Your task to perform on an android device: Open privacy settings Image 0: 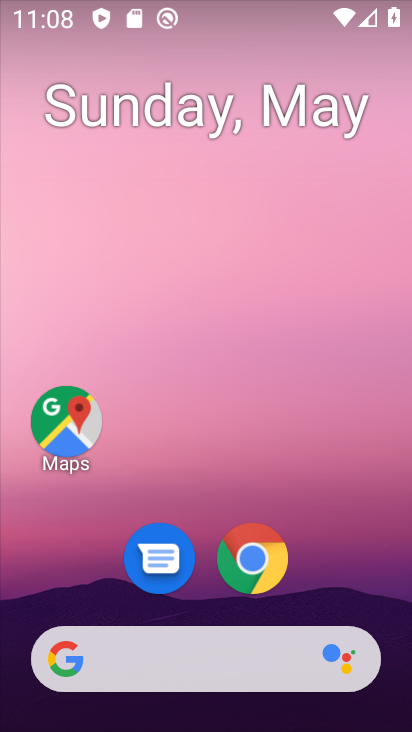
Step 0: drag from (342, 583) to (346, 254)
Your task to perform on an android device: Open privacy settings Image 1: 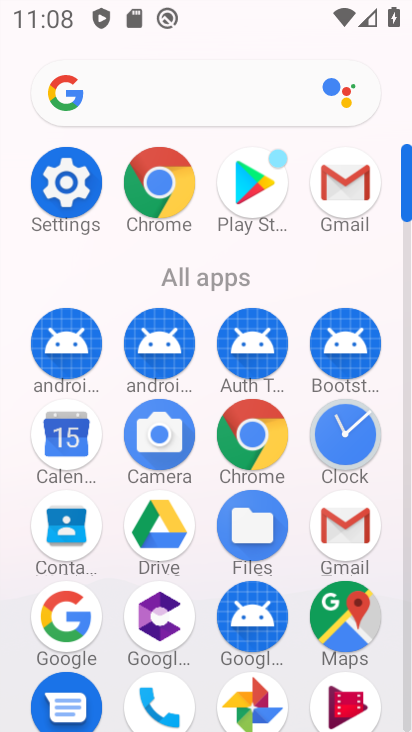
Step 1: click (75, 178)
Your task to perform on an android device: Open privacy settings Image 2: 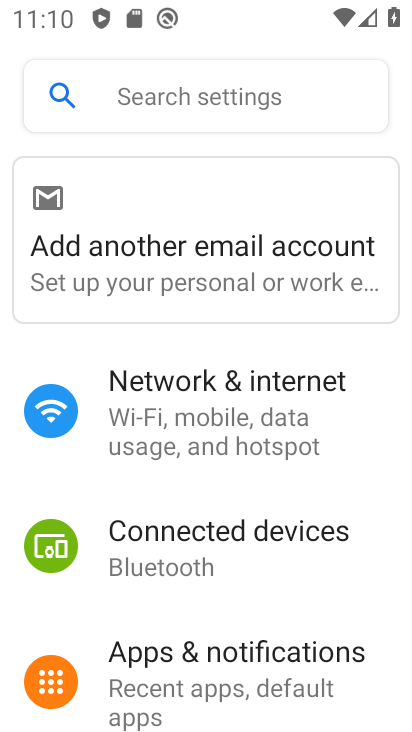
Step 2: drag from (355, 608) to (355, 408)
Your task to perform on an android device: Open privacy settings Image 3: 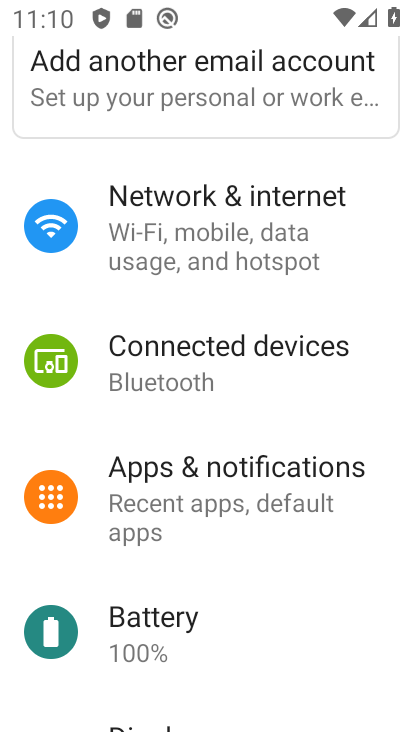
Step 3: drag from (351, 637) to (350, 423)
Your task to perform on an android device: Open privacy settings Image 4: 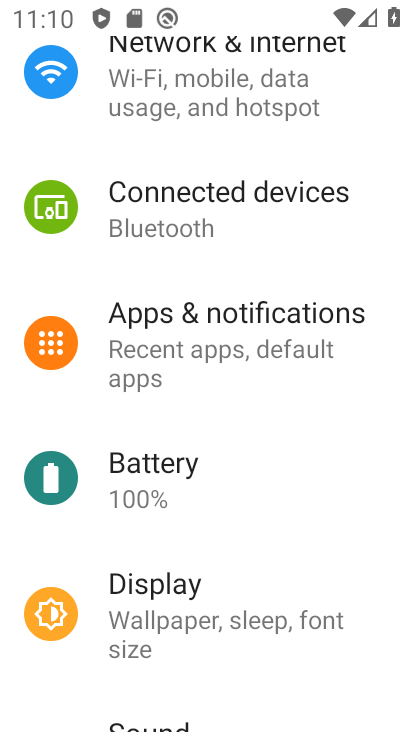
Step 4: drag from (327, 667) to (317, 487)
Your task to perform on an android device: Open privacy settings Image 5: 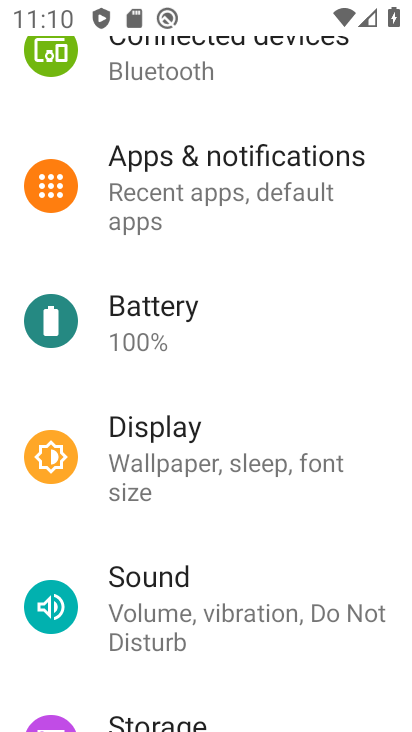
Step 5: drag from (283, 699) to (294, 422)
Your task to perform on an android device: Open privacy settings Image 6: 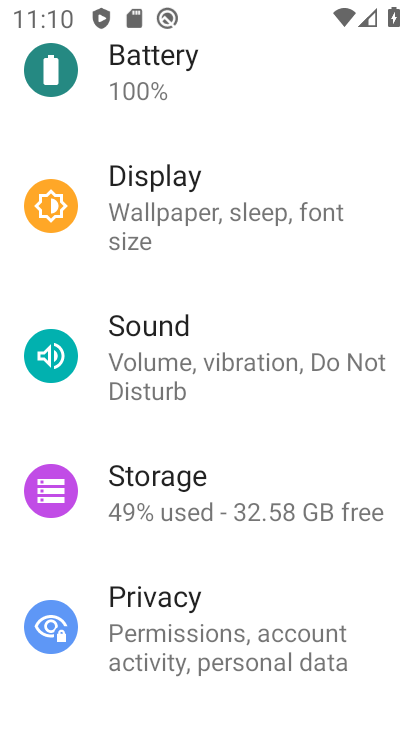
Step 6: click (237, 638)
Your task to perform on an android device: Open privacy settings Image 7: 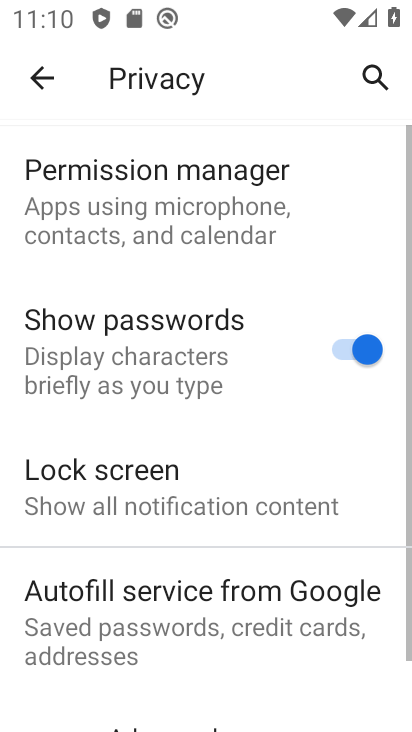
Step 7: drag from (246, 663) to (259, 488)
Your task to perform on an android device: Open privacy settings Image 8: 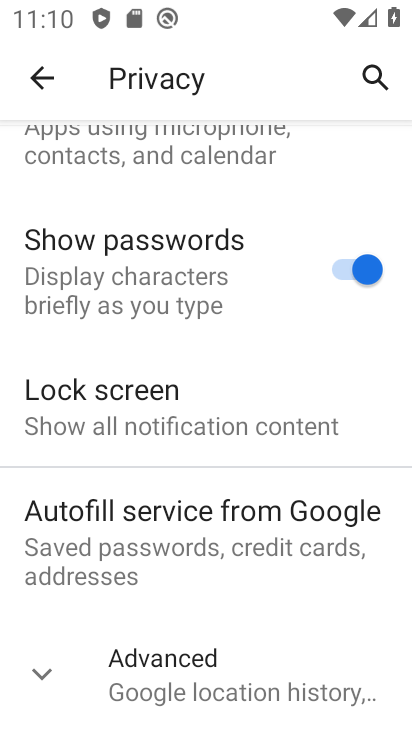
Step 8: click (234, 679)
Your task to perform on an android device: Open privacy settings Image 9: 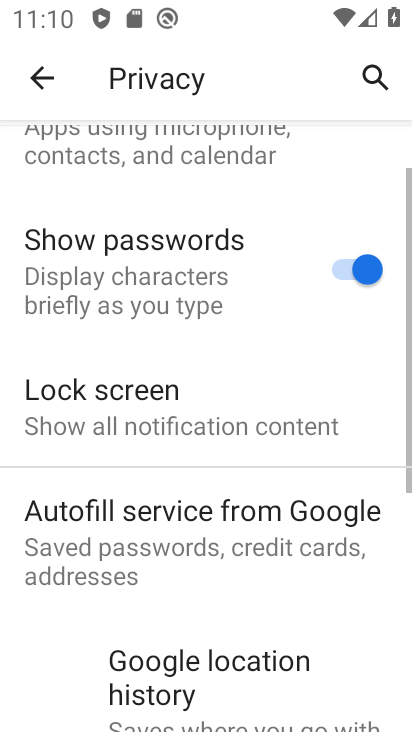
Step 9: task complete